Your task to perform on an android device: add a contact in the contacts app Image 0: 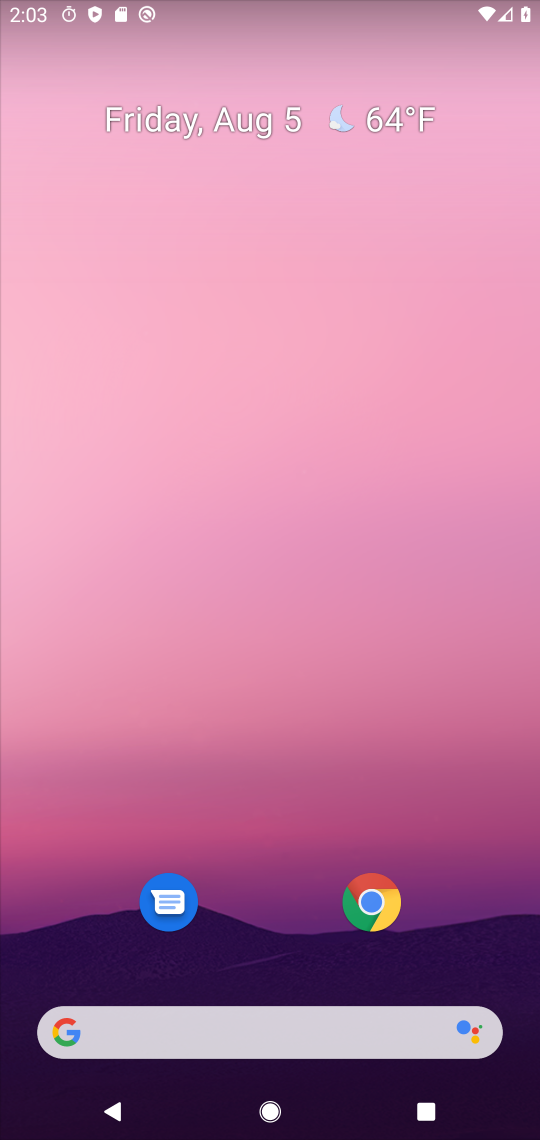
Step 0: press home button
Your task to perform on an android device: add a contact in the contacts app Image 1: 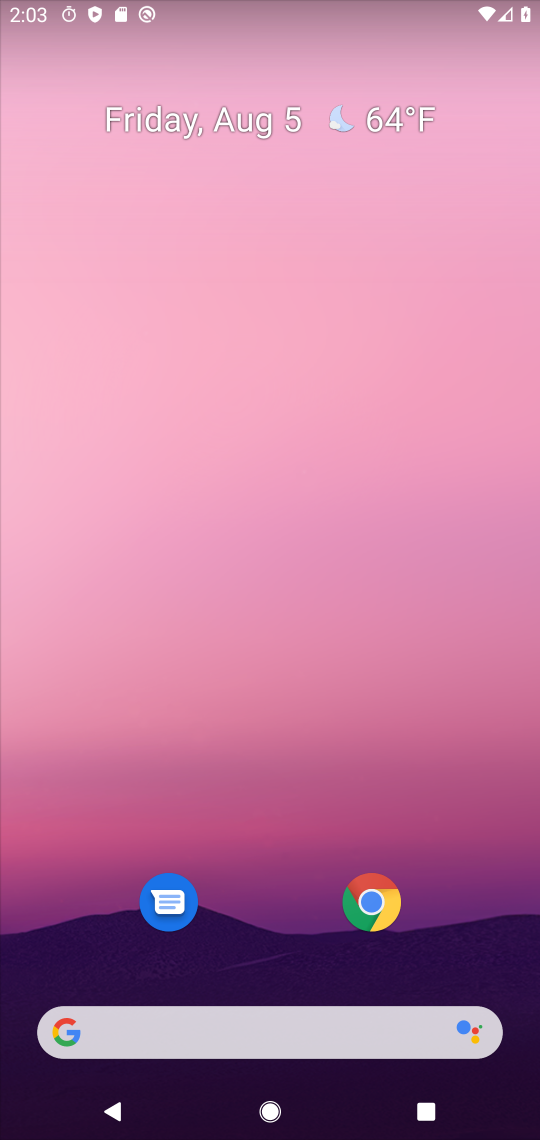
Step 1: drag from (320, 1039) to (257, 231)
Your task to perform on an android device: add a contact in the contacts app Image 2: 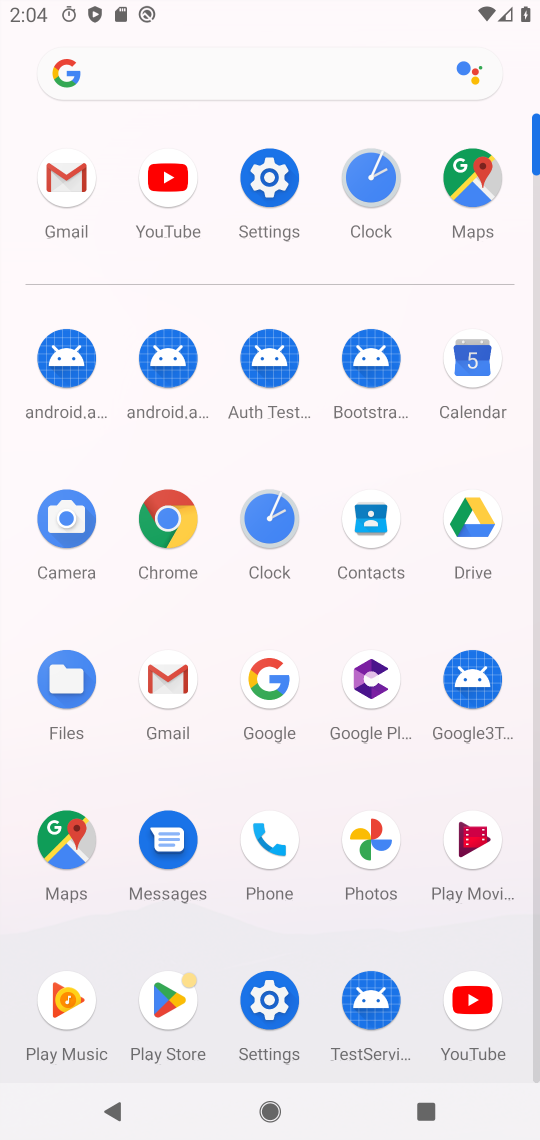
Step 2: click (272, 868)
Your task to perform on an android device: add a contact in the contacts app Image 3: 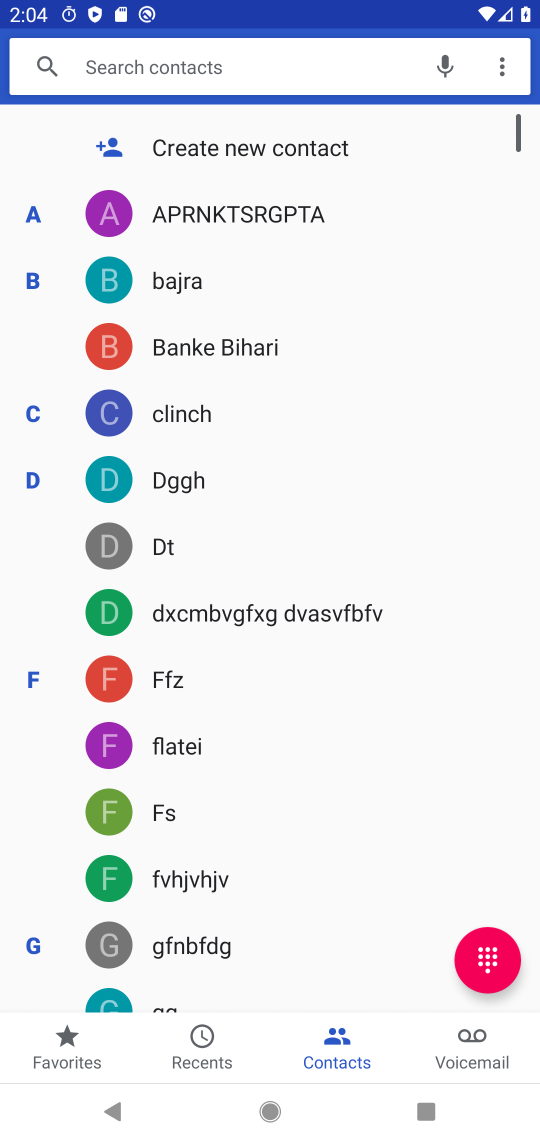
Step 3: click (199, 158)
Your task to perform on an android device: add a contact in the contacts app Image 4: 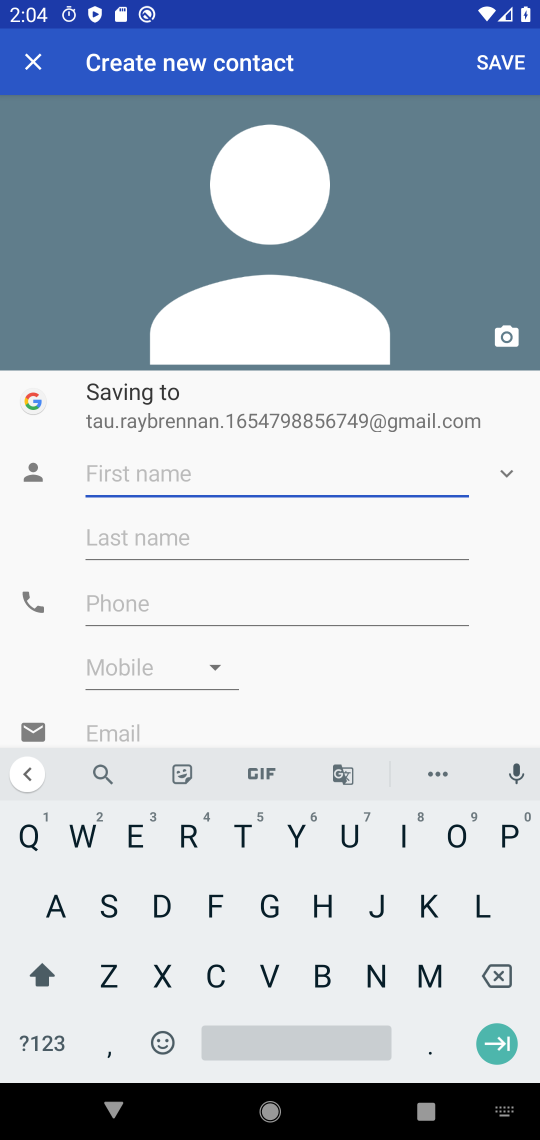
Step 4: click (248, 908)
Your task to perform on an android device: add a contact in the contacts app Image 5: 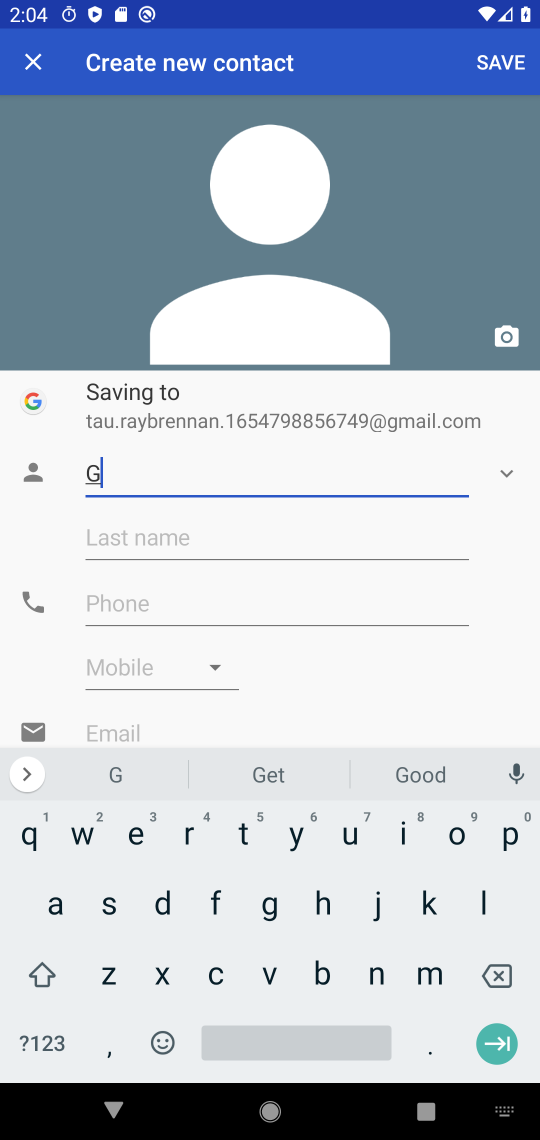
Step 5: click (163, 893)
Your task to perform on an android device: add a contact in the contacts app Image 6: 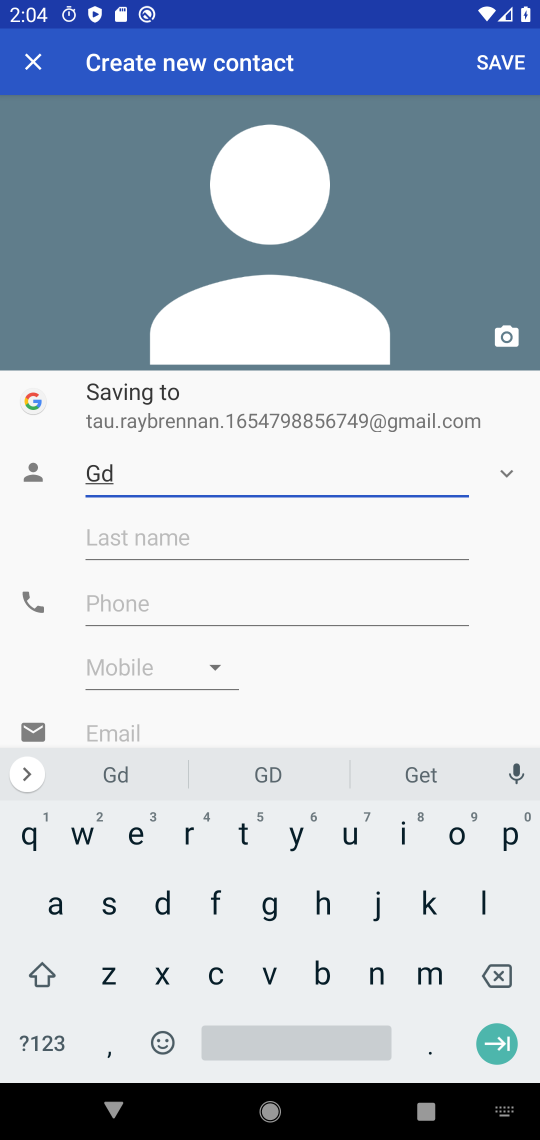
Step 6: click (176, 604)
Your task to perform on an android device: add a contact in the contacts app Image 7: 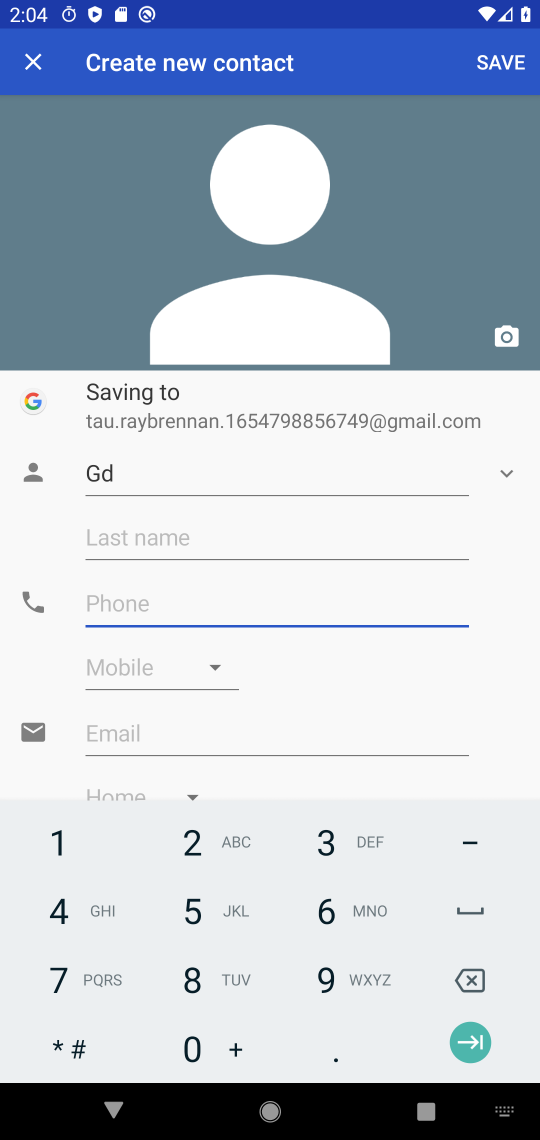
Step 7: click (207, 934)
Your task to perform on an android device: add a contact in the contacts app Image 8: 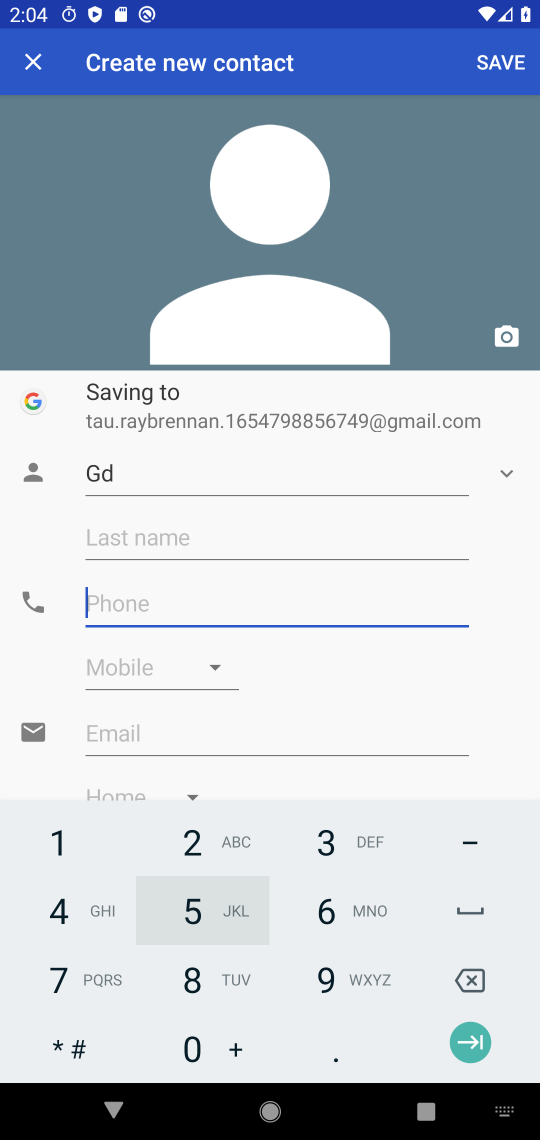
Step 8: drag from (204, 972) to (346, 883)
Your task to perform on an android device: add a contact in the contacts app Image 9: 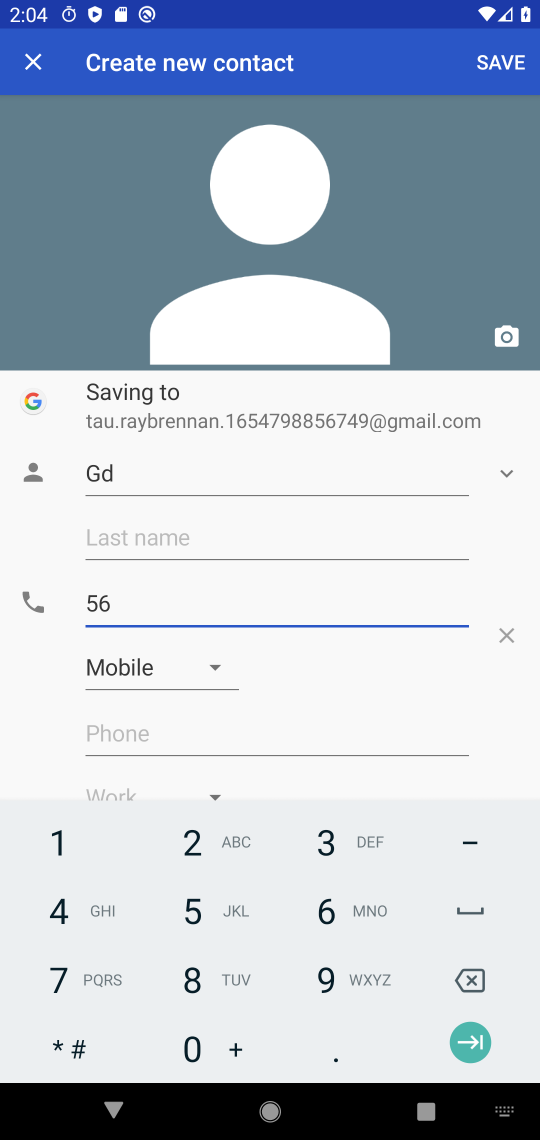
Step 9: click (72, 850)
Your task to perform on an android device: add a contact in the contacts app Image 10: 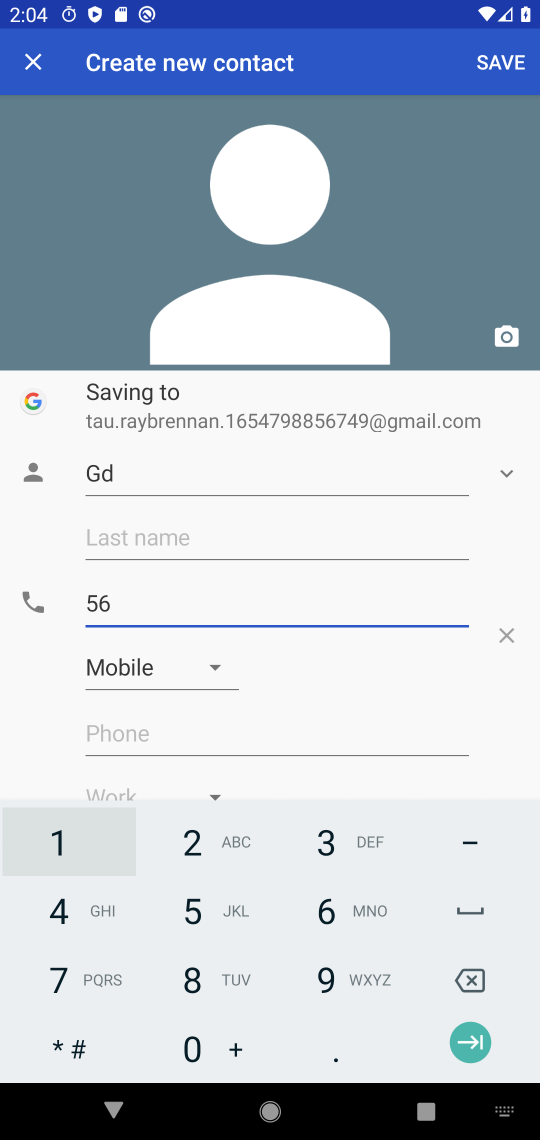
Step 10: click (77, 884)
Your task to perform on an android device: add a contact in the contacts app Image 11: 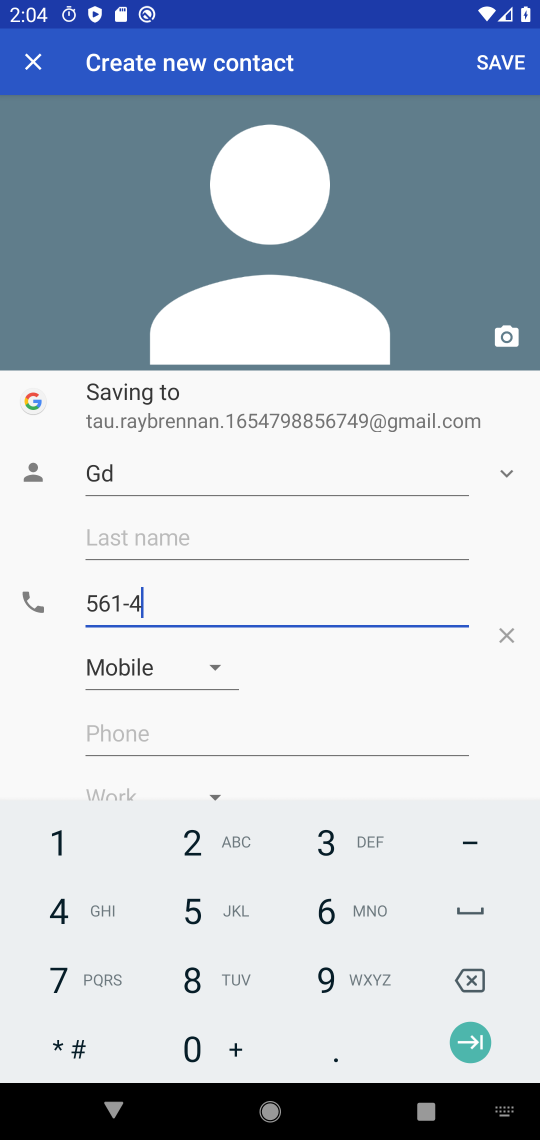
Step 11: click (200, 991)
Your task to perform on an android device: add a contact in the contacts app Image 12: 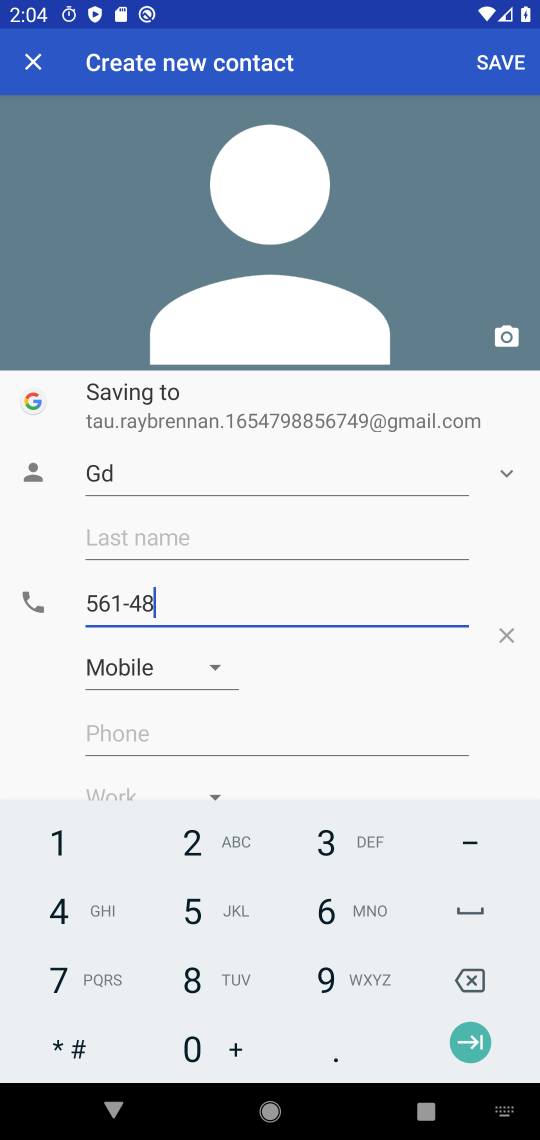
Step 12: click (188, 1044)
Your task to perform on an android device: add a contact in the contacts app Image 13: 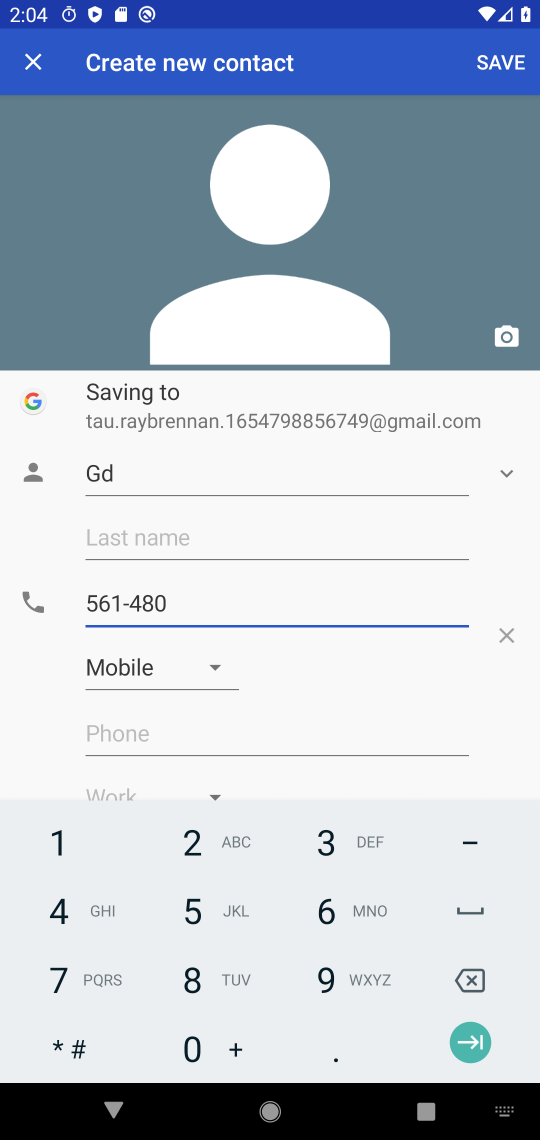
Step 13: click (504, 58)
Your task to perform on an android device: add a contact in the contacts app Image 14: 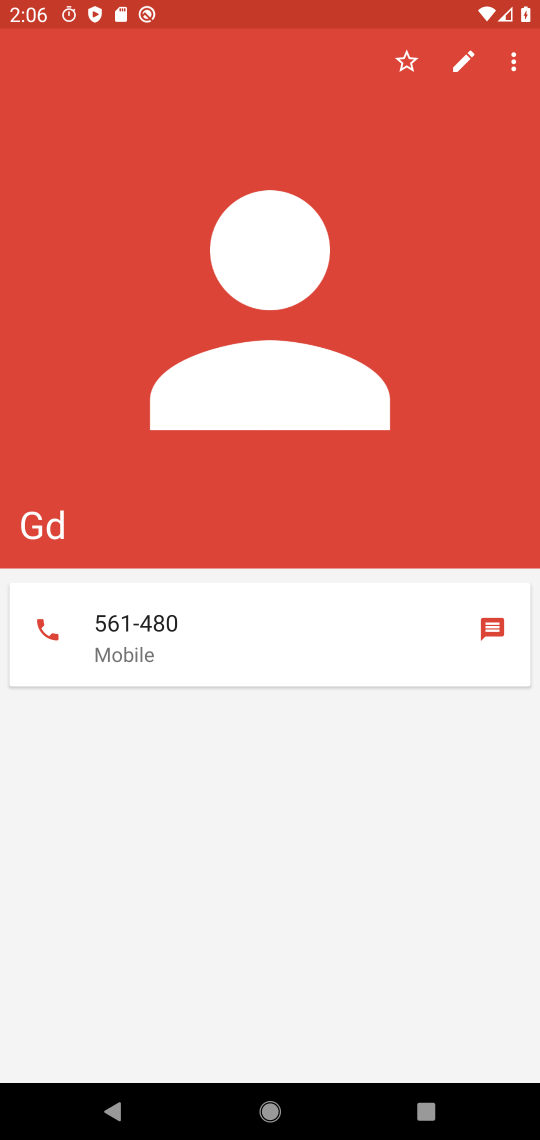
Step 14: task complete